Your task to perform on an android device: Go to ESPN.com Image 0: 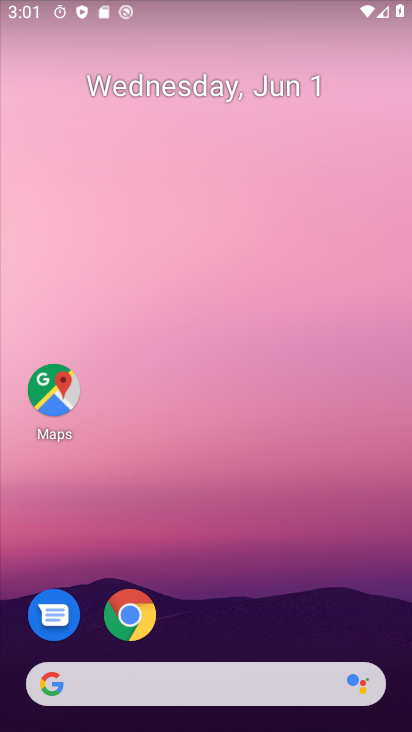
Step 0: drag from (317, 663) to (210, 2)
Your task to perform on an android device: Go to ESPN.com Image 1: 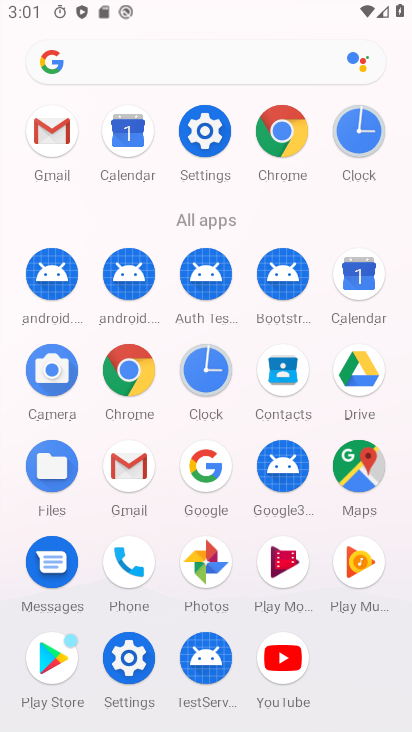
Step 1: click (125, 371)
Your task to perform on an android device: Go to ESPN.com Image 2: 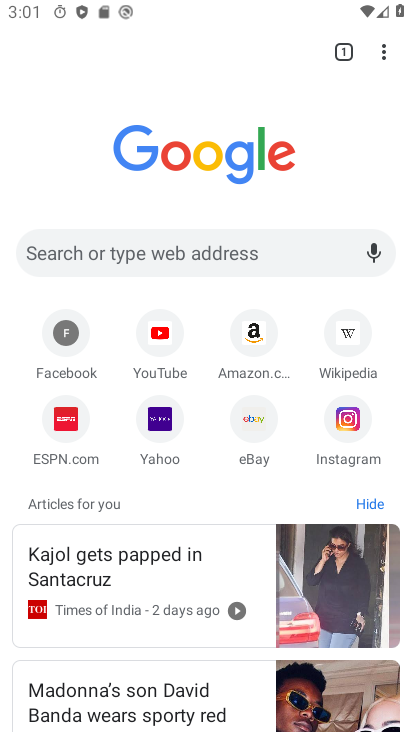
Step 2: click (66, 426)
Your task to perform on an android device: Go to ESPN.com Image 3: 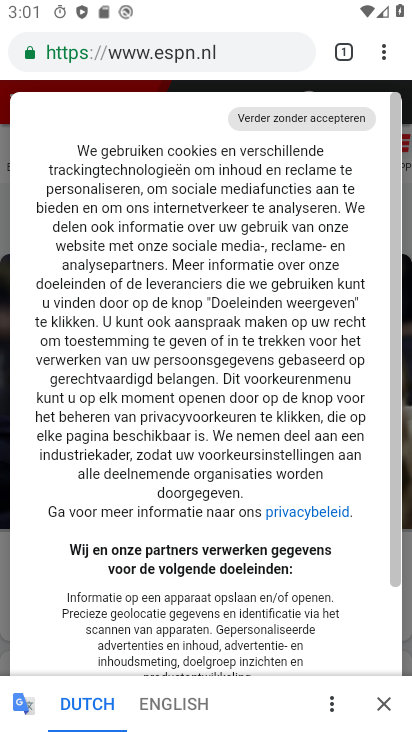
Step 3: task complete